Your task to perform on an android device: toggle data saver in the chrome app Image 0: 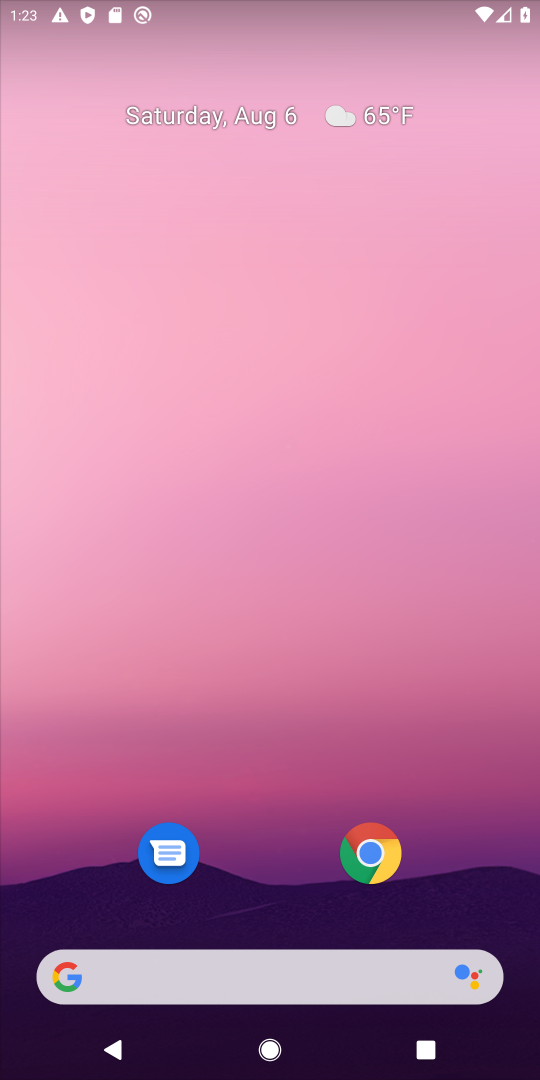
Step 0: click (367, 851)
Your task to perform on an android device: toggle data saver in the chrome app Image 1: 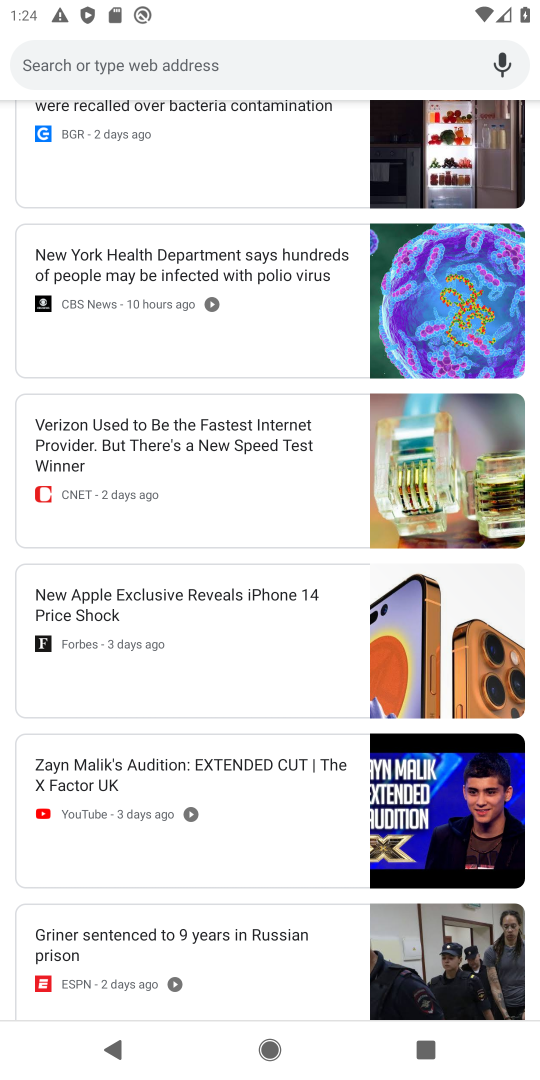
Step 1: drag from (249, 130) to (219, 580)
Your task to perform on an android device: toggle data saver in the chrome app Image 2: 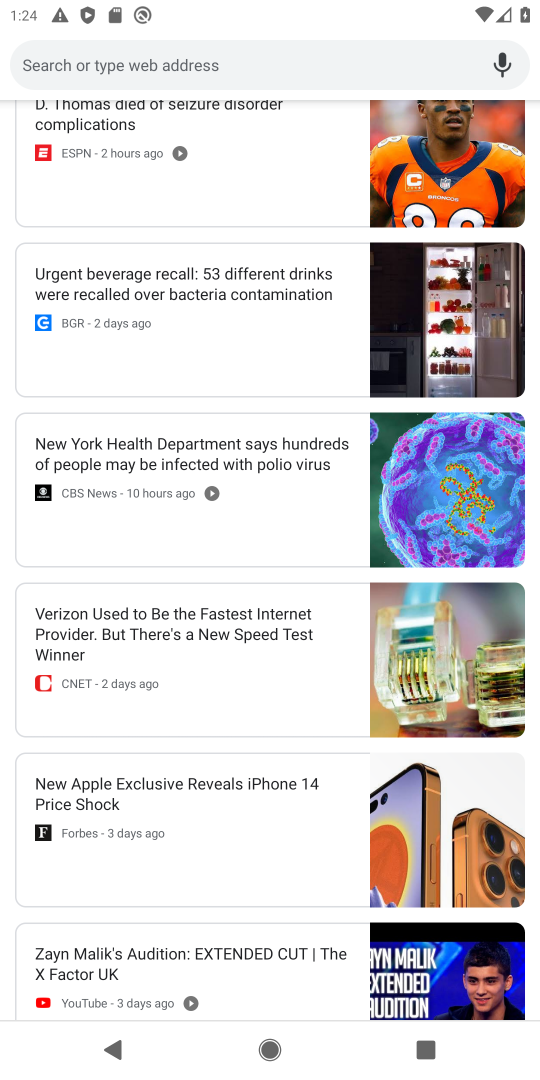
Step 2: drag from (318, 256) to (344, 734)
Your task to perform on an android device: toggle data saver in the chrome app Image 3: 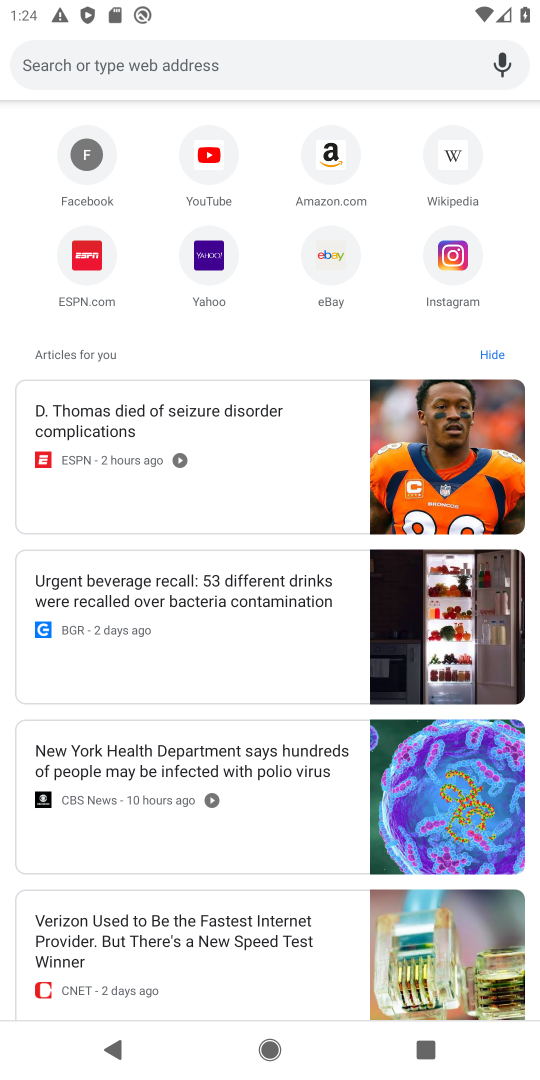
Step 3: drag from (392, 173) to (371, 584)
Your task to perform on an android device: toggle data saver in the chrome app Image 4: 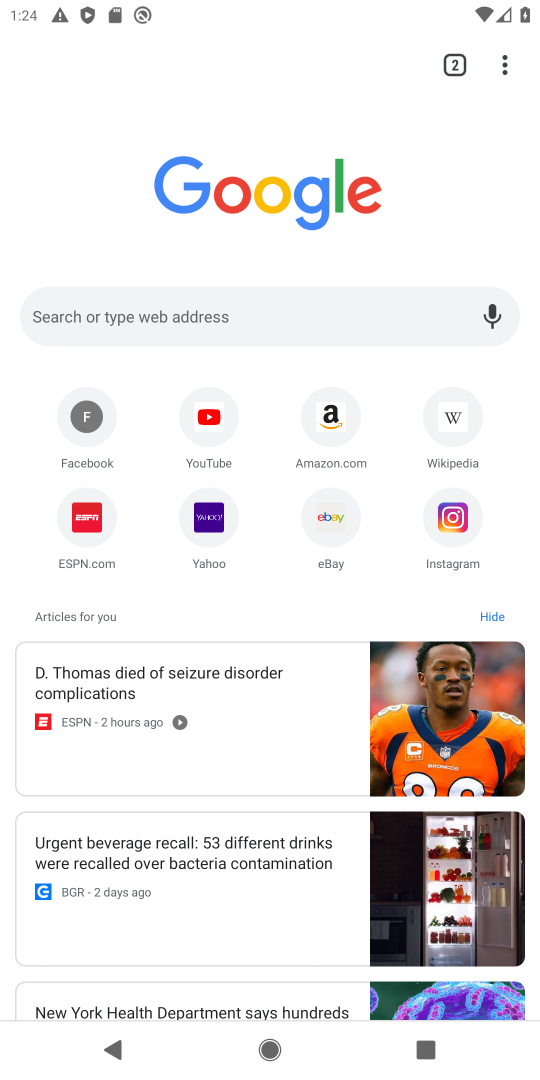
Step 4: click (496, 68)
Your task to perform on an android device: toggle data saver in the chrome app Image 5: 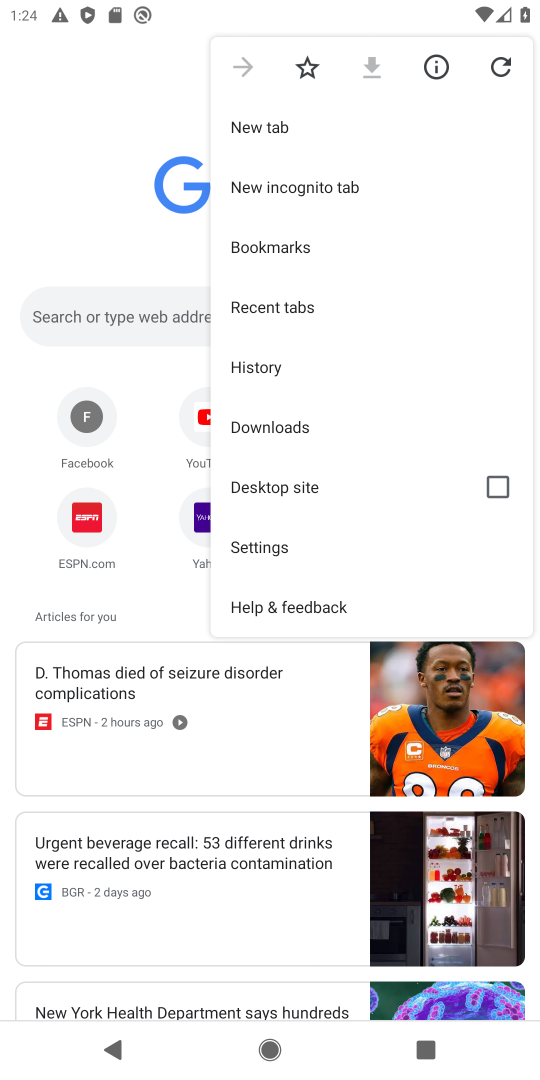
Step 5: click (273, 538)
Your task to perform on an android device: toggle data saver in the chrome app Image 6: 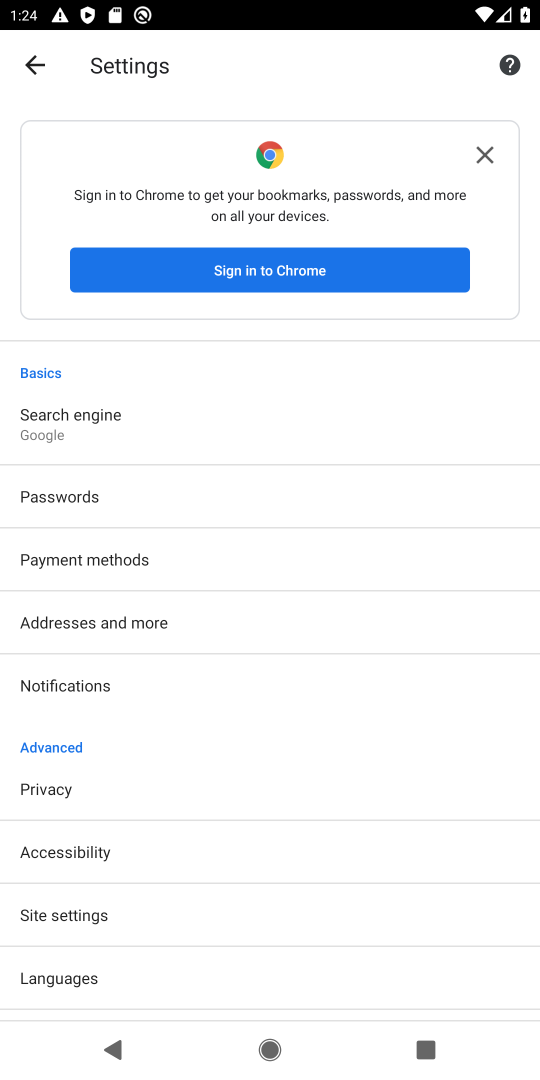
Step 6: drag from (235, 906) to (233, 396)
Your task to perform on an android device: toggle data saver in the chrome app Image 7: 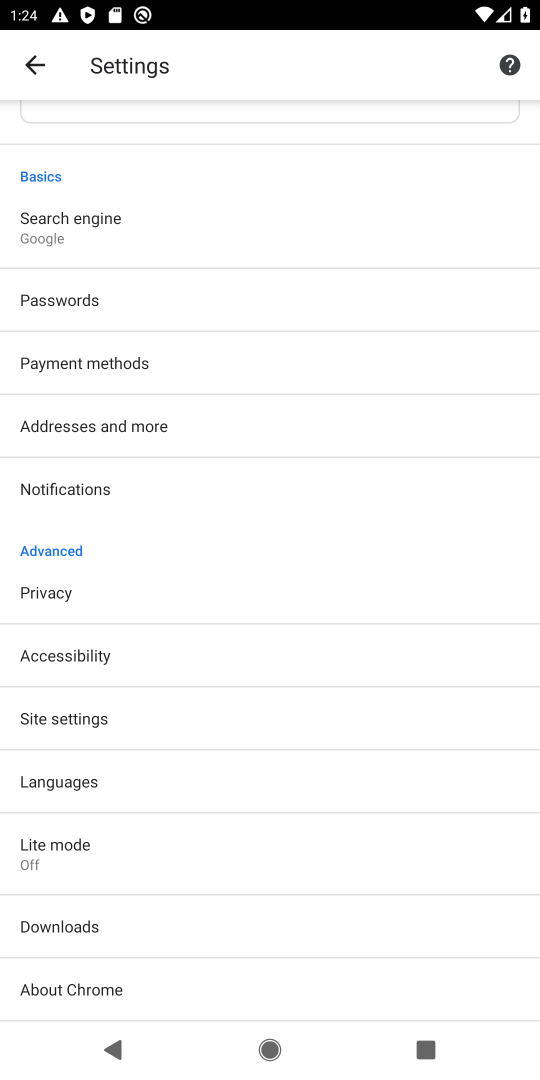
Step 7: click (40, 855)
Your task to perform on an android device: toggle data saver in the chrome app Image 8: 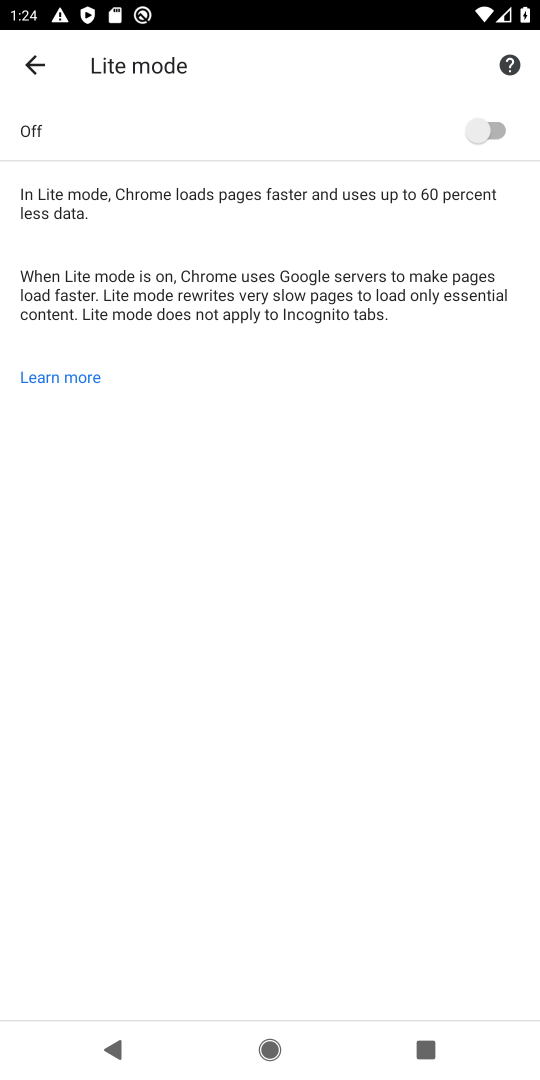
Step 8: click (501, 131)
Your task to perform on an android device: toggle data saver in the chrome app Image 9: 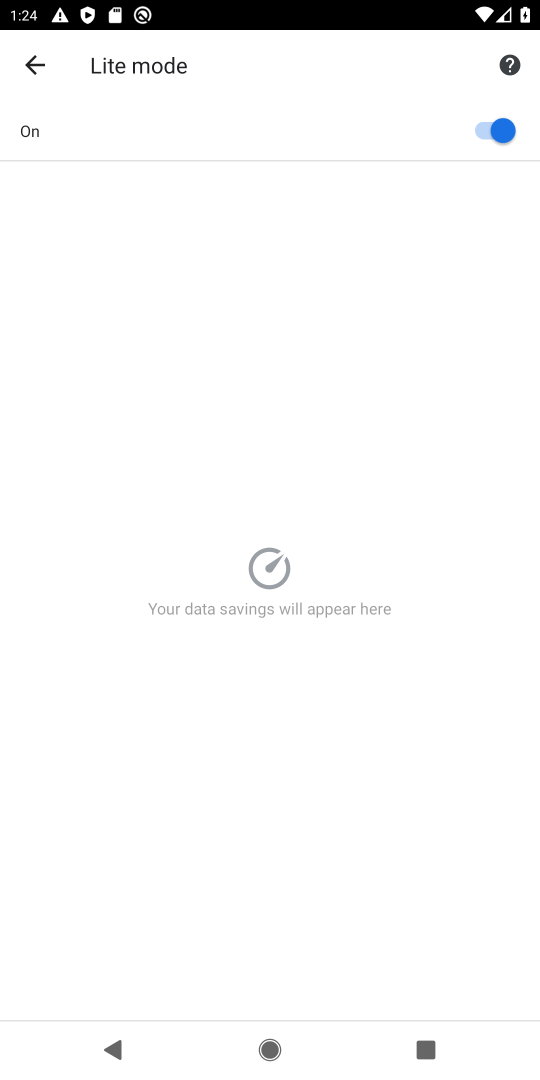
Step 9: task complete